Your task to perform on an android device: What's the weather? Image 0: 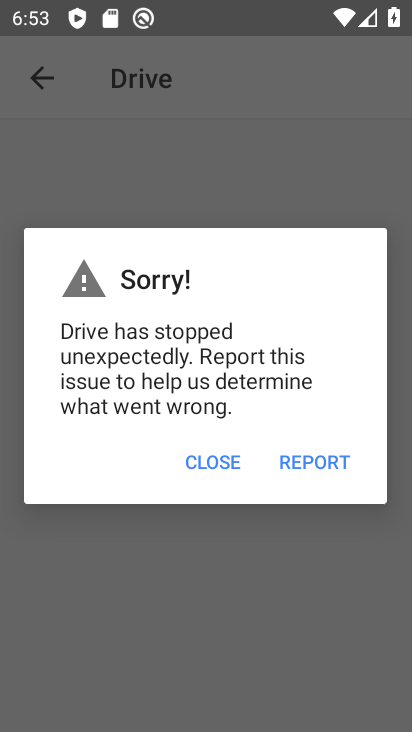
Step 0: press home button
Your task to perform on an android device: What's the weather? Image 1: 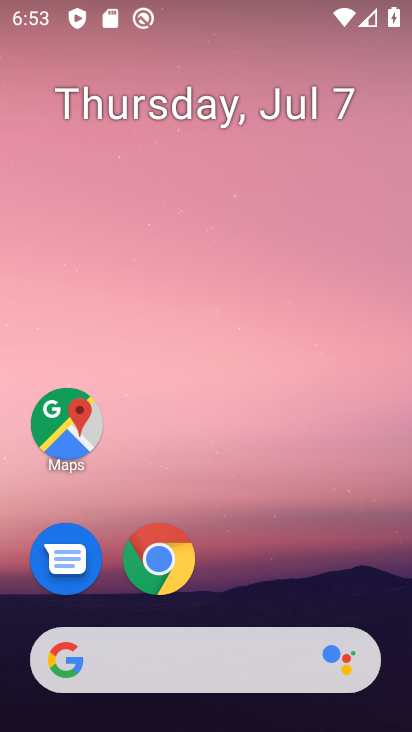
Step 1: drag from (319, 622) to (347, 224)
Your task to perform on an android device: What's the weather? Image 2: 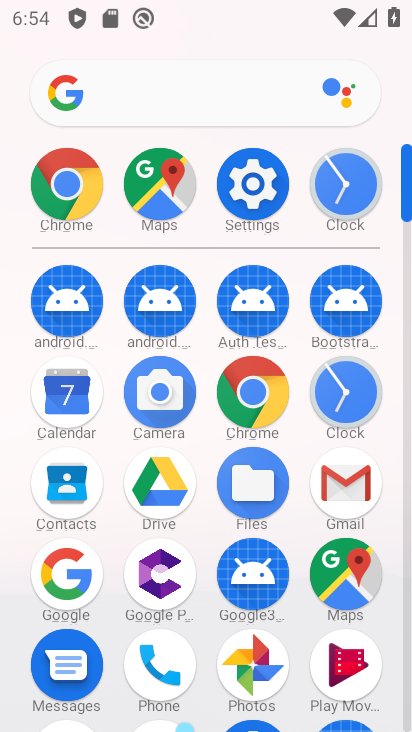
Step 2: click (75, 596)
Your task to perform on an android device: What's the weather? Image 3: 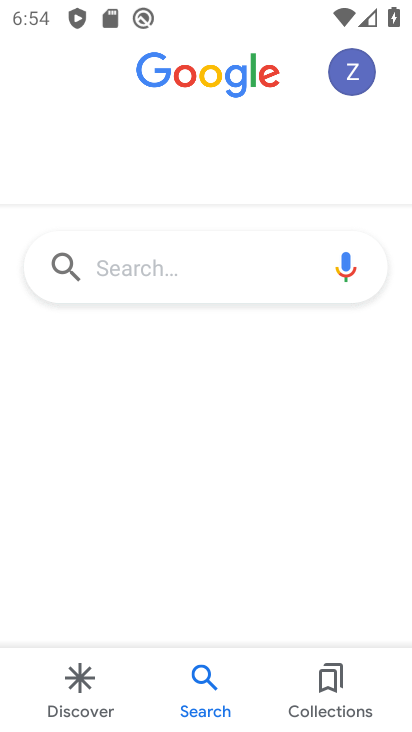
Step 3: click (161, 249)
Your task to perform on an android device: What's the weather? Image 4: 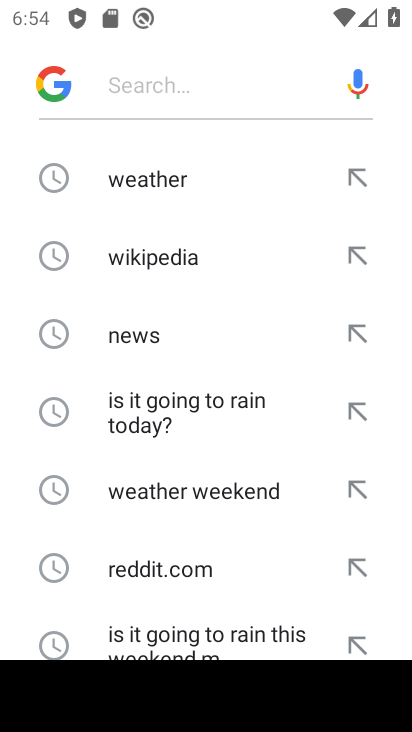
Step 4: click (173, 197)
Your task to perform on an android device: What's the weather? Image 5: 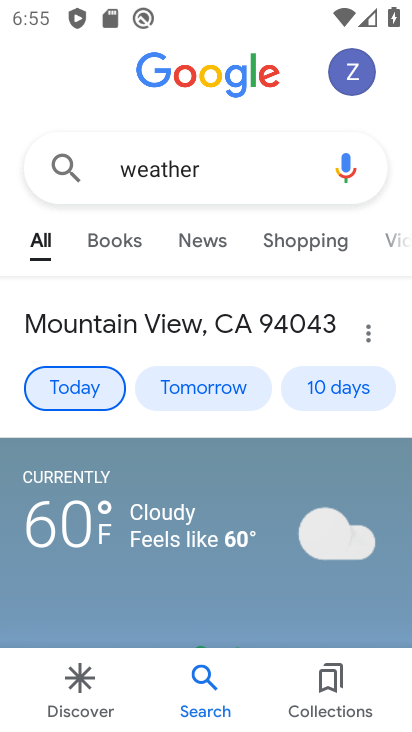
Step 5: task complete